Your task to perform on an android device: open sync settings in chrome Image 0: 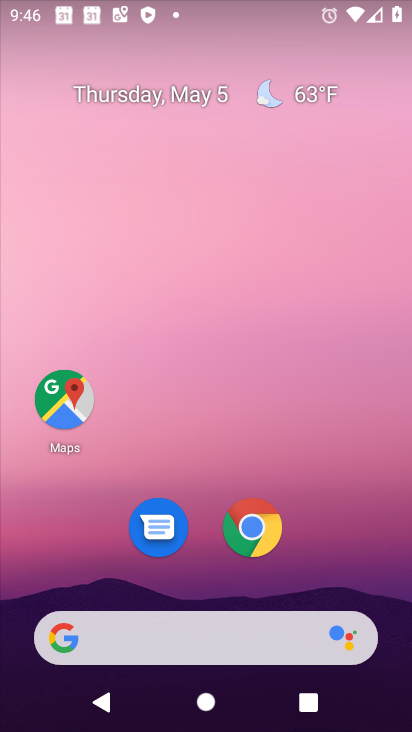
Step 0: click (248, 539)
Your task to perform on an android device: open sync settings in chrome Image 1: 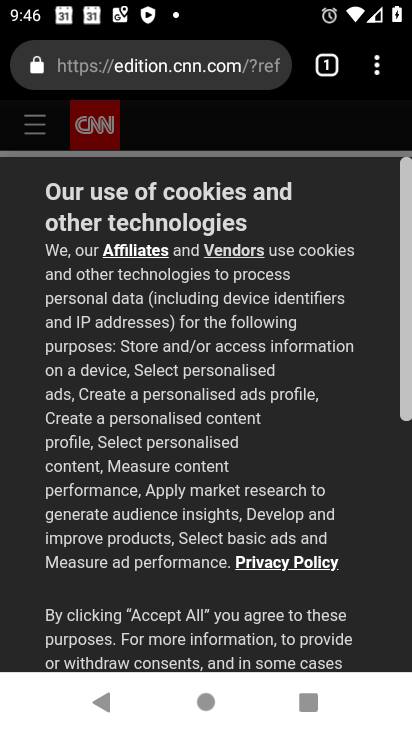
Step 1: click (377, 75)
Your task to perform on an android device: open sync settings in chrome Image 2: 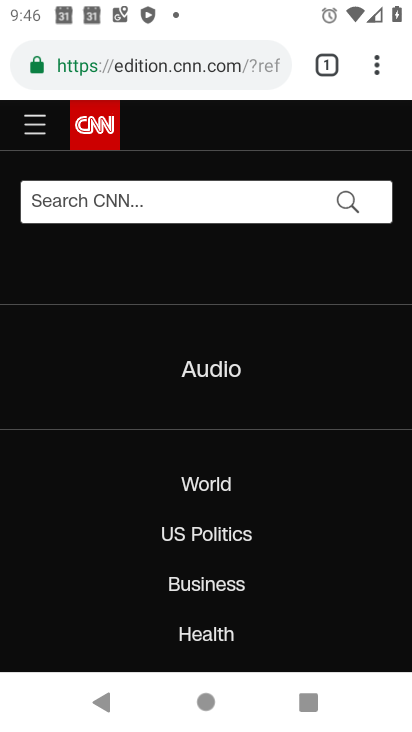
Step 2: click (383, 61)
Your task to perform on an android device: open sync settings in chrome Image 3: 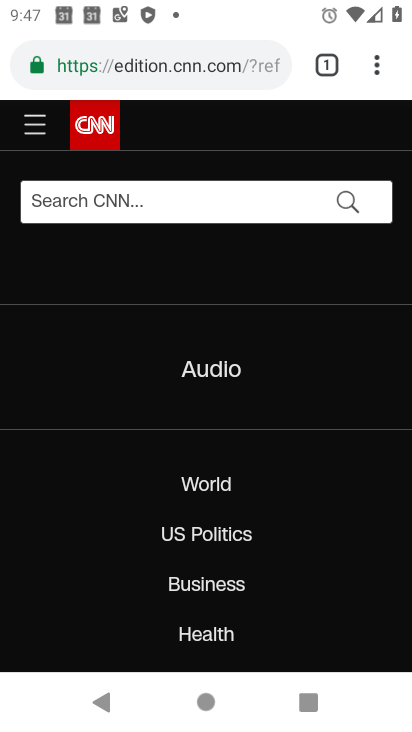
Step 3: drag from (375, 66) to (245, 579)
Your task to perform on an android device: open sync settings in chrome Image 4: 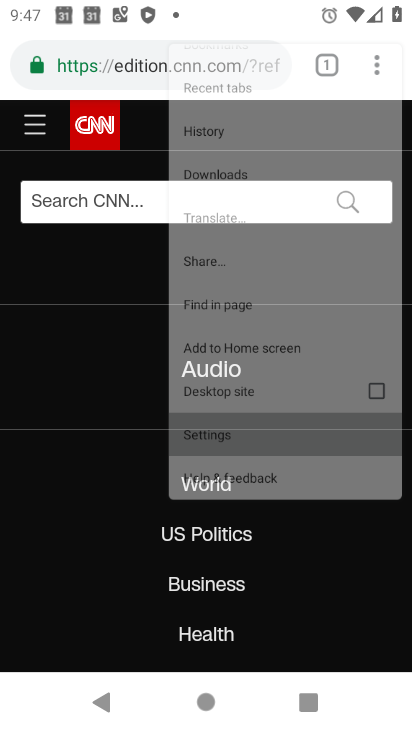
Step 4: click (245, 579)
Your task to perform on an android device: open sync settings in chrome Image 5: 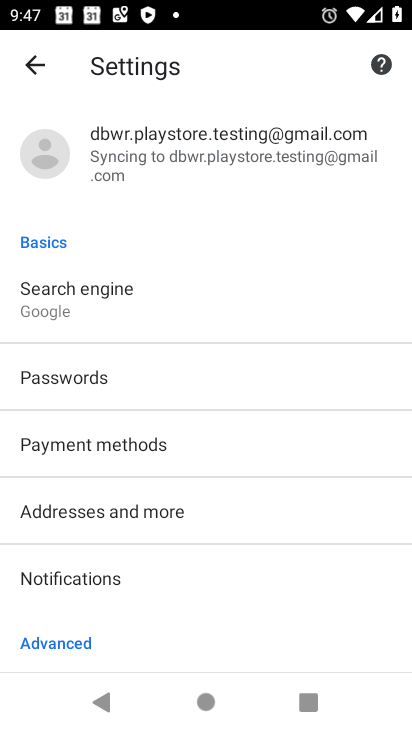
Step 5: click (268, 168)
Your task to perform on an android device: open sync settings in chrome Image 6: 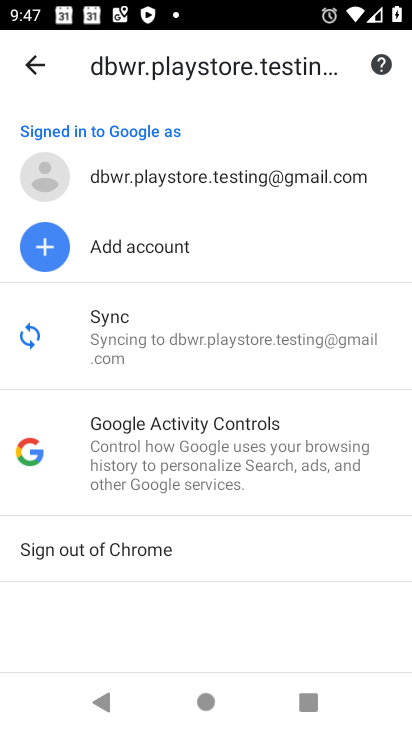
Step 6: task complete